Your task to perform on an android device: Search for the best selling books on Target. Image 0: 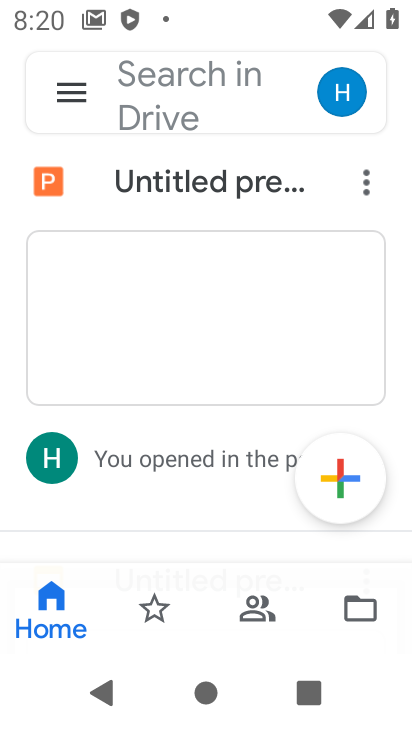
Step 0: press home button
Your task to perform on an android device: Search for the best selling books on Target. Image 1: 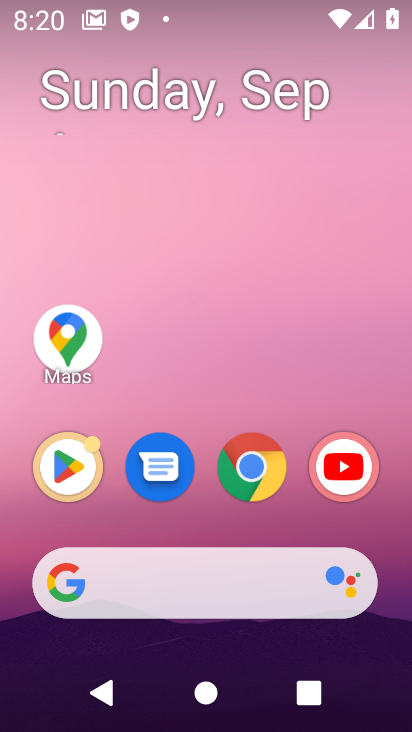
Step 1: click (262, 450)
Your task to perform on an android device: Search for the best selling books on Target. Image 2: 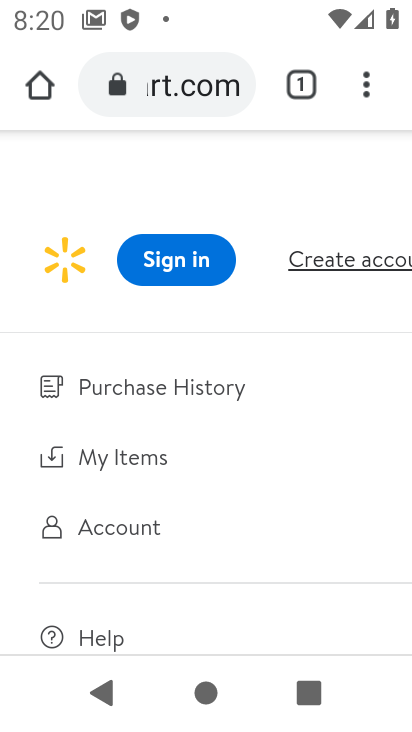
Step 2: press home button
Your task to perform on an android device: Search for the best selling books on Target. Image 3: 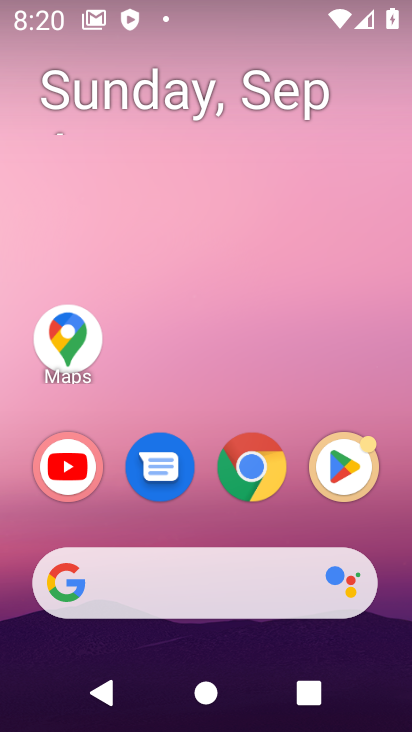
Step 3: click (235, 465)
Your task to perform on an android device: Search for the best selling books on Target. Image 4: 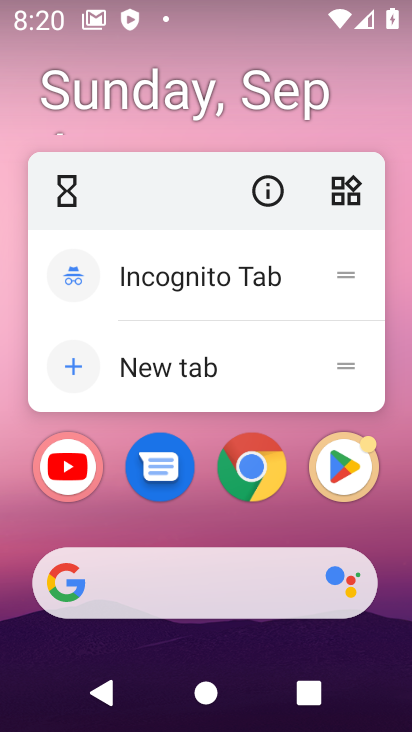
Step 4: click (255, 463)
Your task to perform on an android device: Search for the best selling books on Target. Image 5: 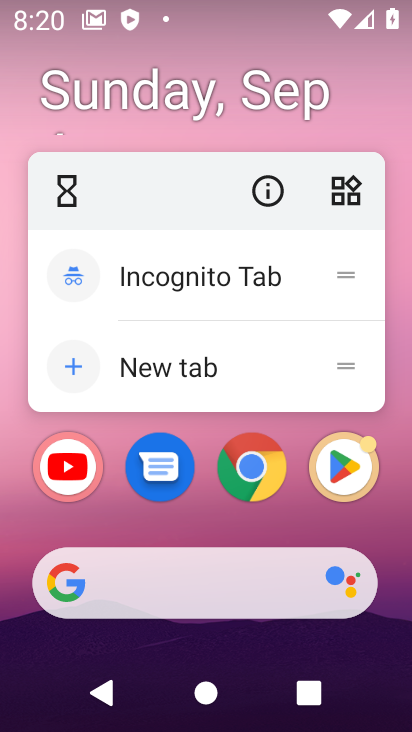
Step 5: click (256, 462)
Your task to perform on an android device: Search for the best selling books on Target. Image 6: 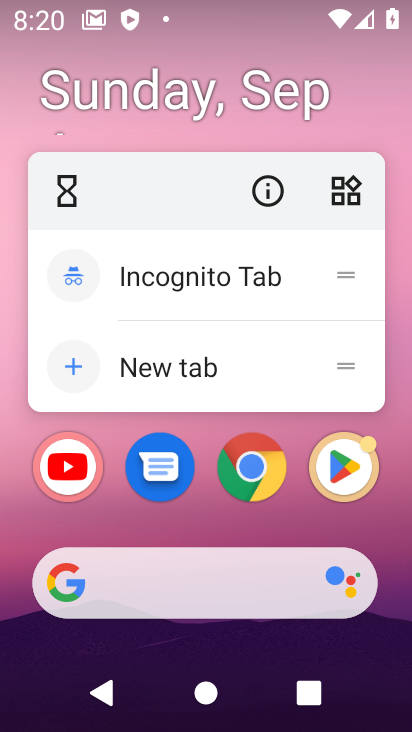
Step 6: click (258, 452)
Your task to perform on an android device: Search for the best selling books on Target. Image 7: 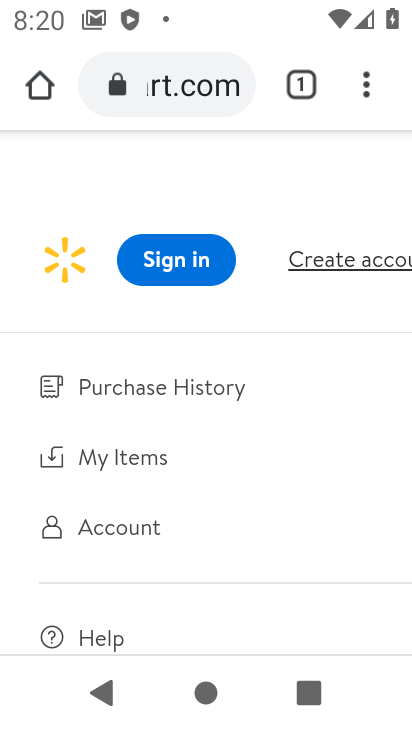
Step 7: click (307, 84)
Your task to perform on an android device: Search for the best selling books on Target. Image 8: 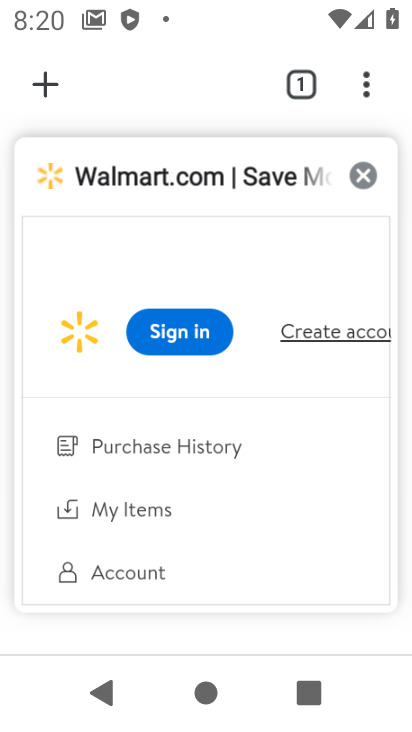
Step 8: click (360, 176)
Your task to perform on an android device: Search for the best selling books on Target. Image 9: 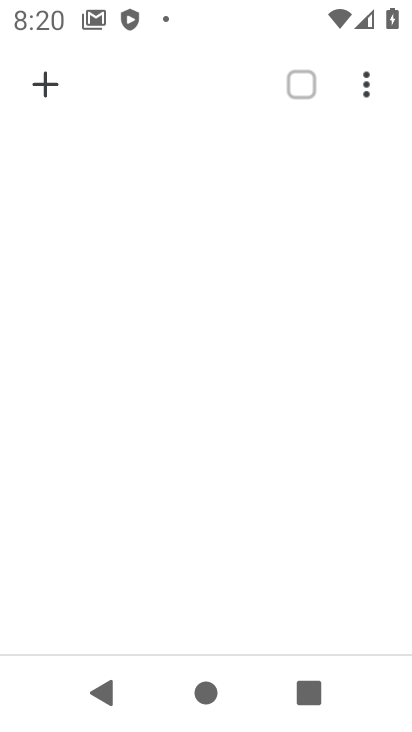
Step 9: click (47, 82)
Your task to perform on an android device: Search for the best selling books on Target. Image 10: 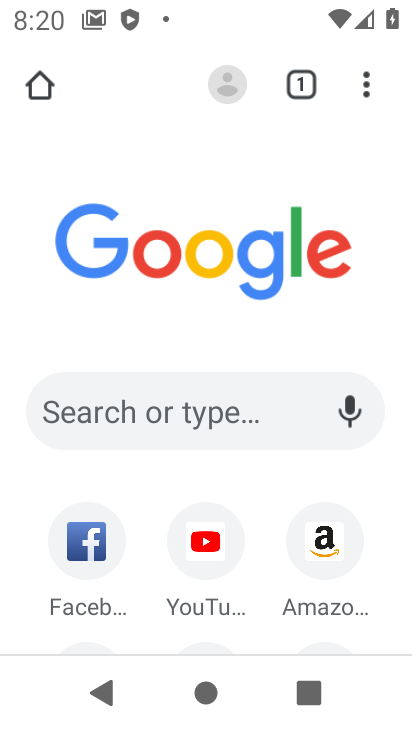
Step 10: click (236, 399)
Your task to perform on an android device: Search for the best selling books on Target. Image 11: 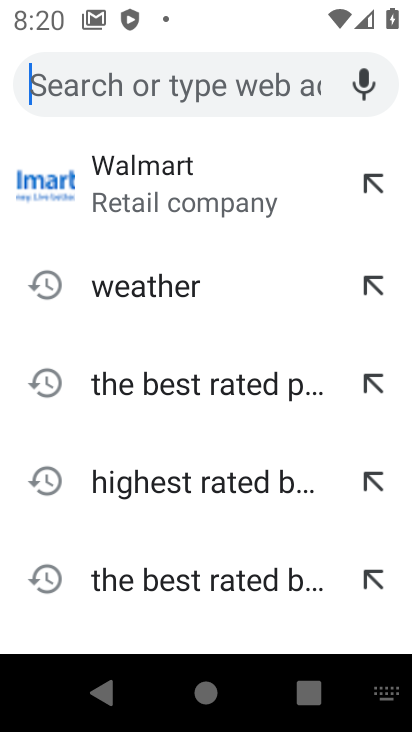
Step 11: type "target"
Your task to perform on an android device: Search for the best selling books on Target. Image 12: 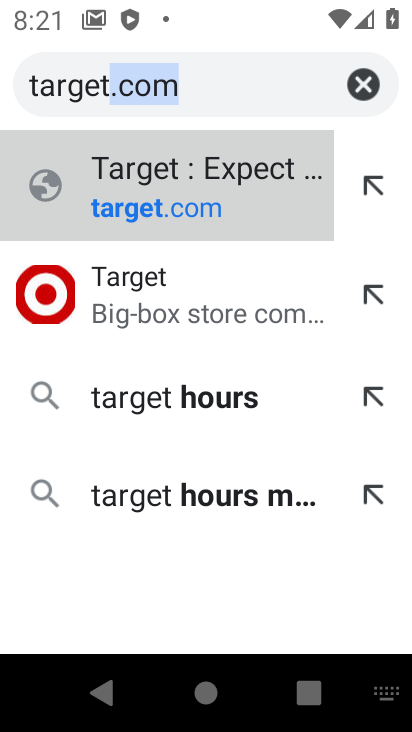
Step 12: click (106, 313)
Your task to perform on an android device: Search for the best selling books on Target. Image 13: 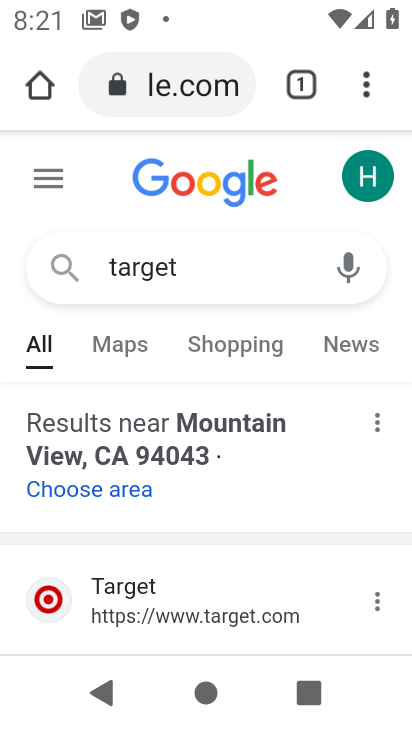
Step 13: drag from (408, 538) to (410, 315)
Your task to perform on an android device: Search for the best selling books on Target. Image 14: 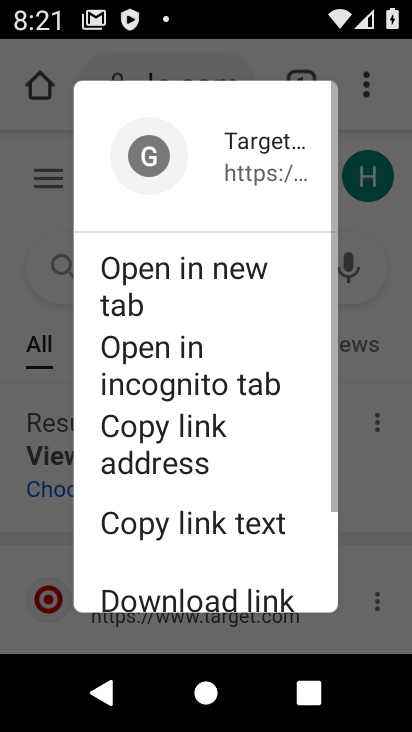
Step 14: click (353, 276)
Your task to perform on an android device: Search for the best selling books on Target. Image 15: 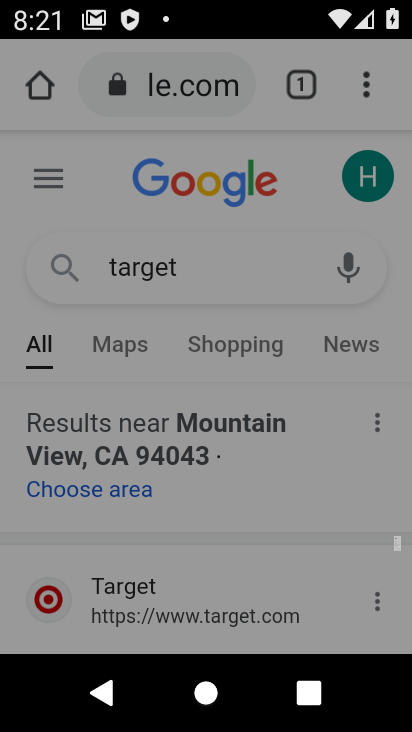
Step 15: click (411, 430)
Your task to perform on an android device: Search for the best selling books on Target. Image 16: 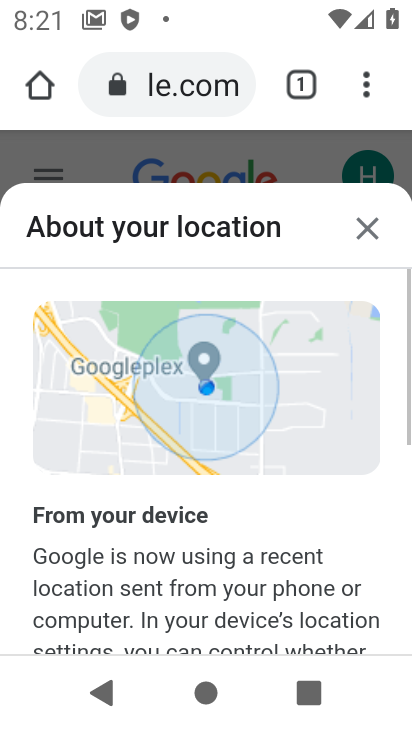
Step 16: click (395, 512)
Your task to perform on an android device: Search for the best selling books on Target. Image 17: 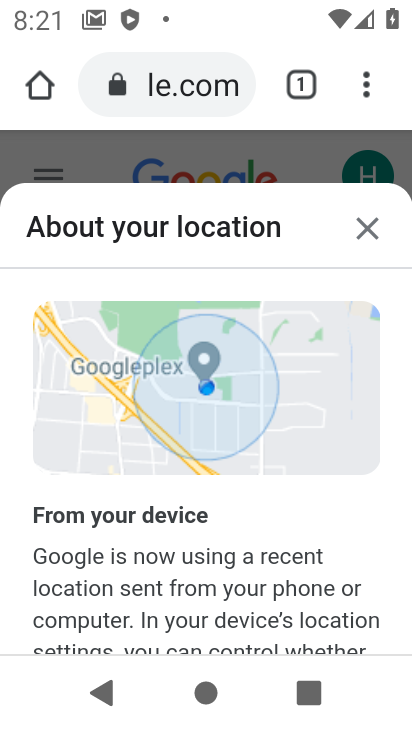
Step 17: click (379, 226)
Your task to perform on an android device: Search for the best selling books on Target. Image 18: 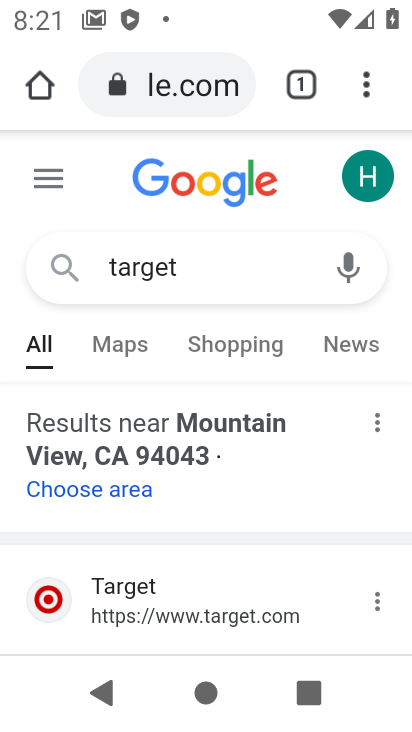
Step 18: drag from (404, 463) to (392, 154)
Your task to perform on an android device: Search for the best selling books on Target. Image 19: 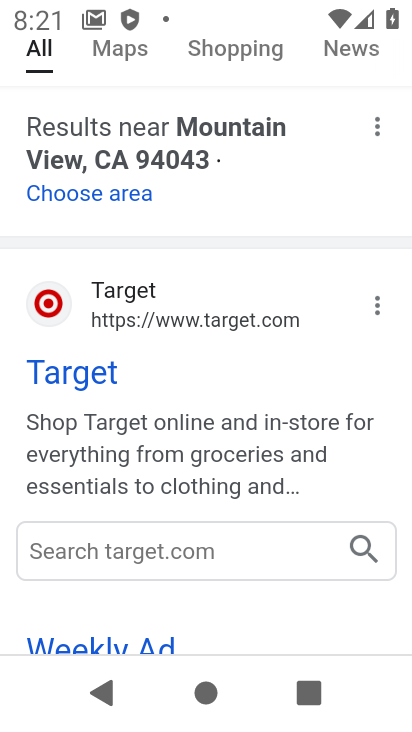
Step 19: click (84, 379)
Your task to perform on an android device: Search for the best selling books on Target. Image 20: 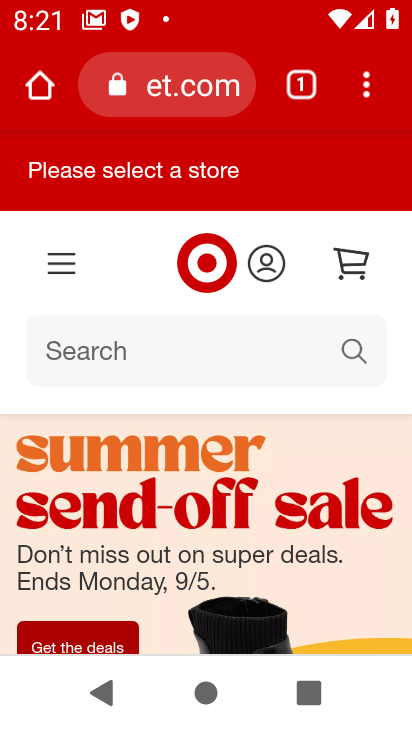
Step 20: click (150, 165)
Your task to perform on an android device: Search for the best selling books on Target. Image 21: 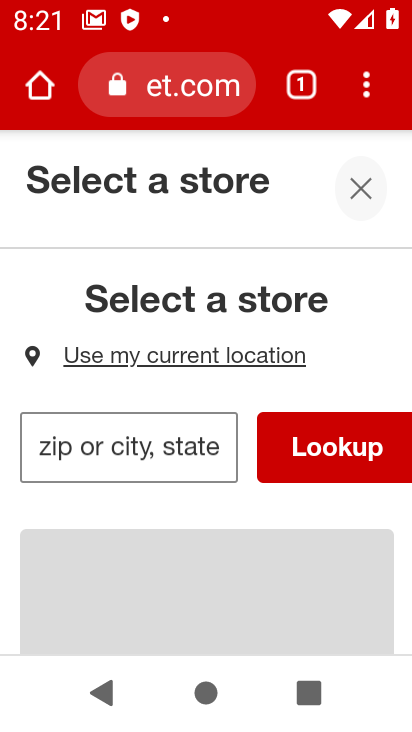
Step 21: click (359, 187)
Your task to perform on an android device: Search for the best selling books on Target. Image 22: 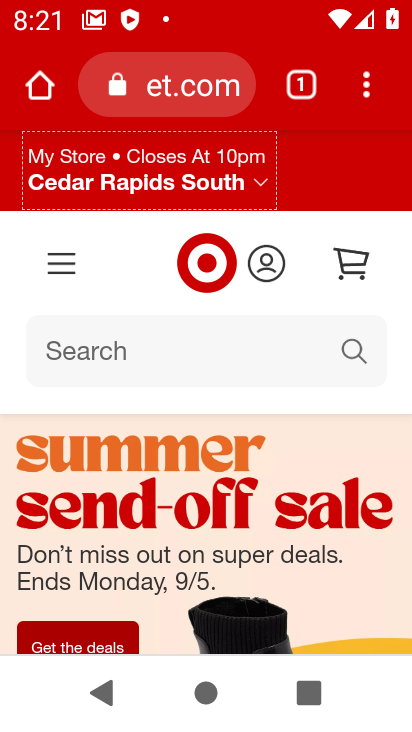
Step 22: click (223, 351)
Your task to perform on an android device: Search for the best selling books on Target. Image 23: 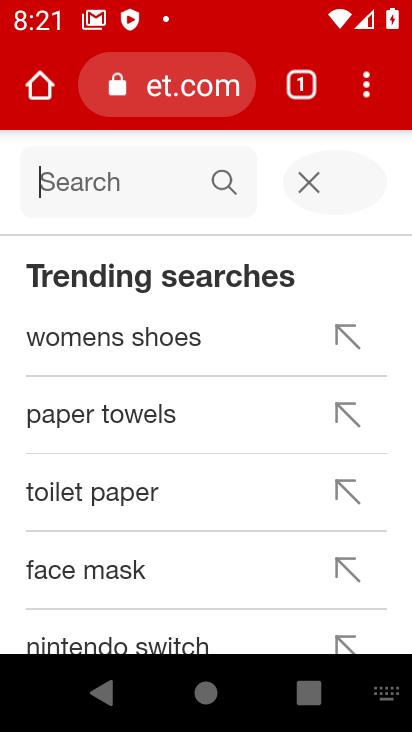
Step 23: type "best selling books"
Your task to perform on an android device: Search for the best selling books on Target. Image 24: 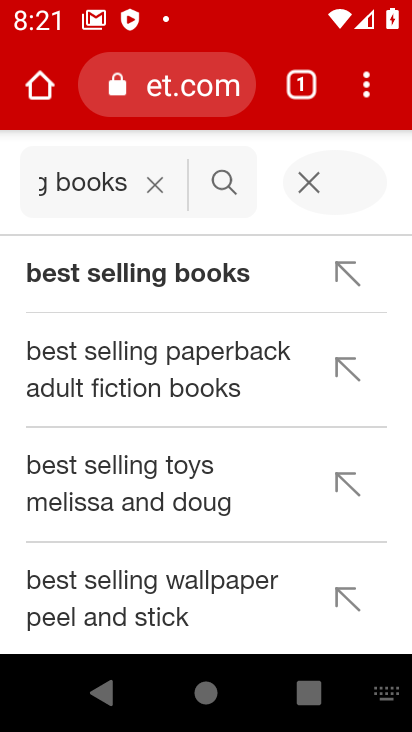
Step 24: click (128, 284)
Your task to perform on an android device: Search for the best selling books on Target. Image 25: 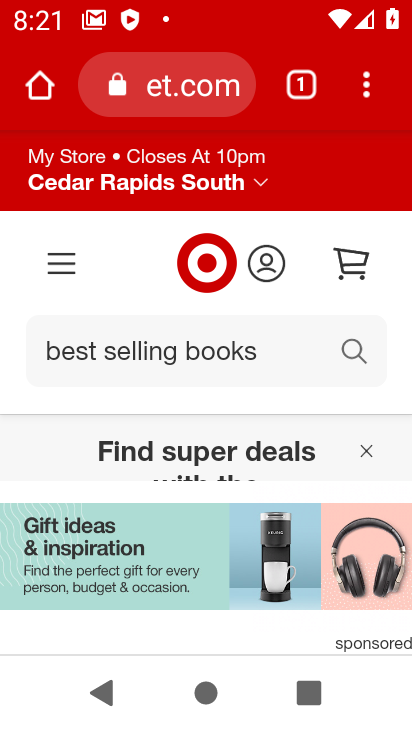
Step 25: drag from (374, 592) to (411, 198)
Your task to perform on an android device: Search for the best selling books on Target. Image 26: 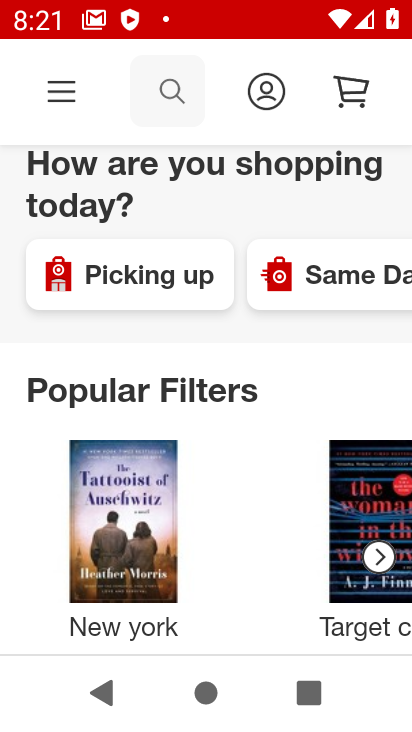
Step 26: drag from (358, 313) to (373, 187)
Your task to perform on an android device: Search for the best selling books on Target. Image 27: 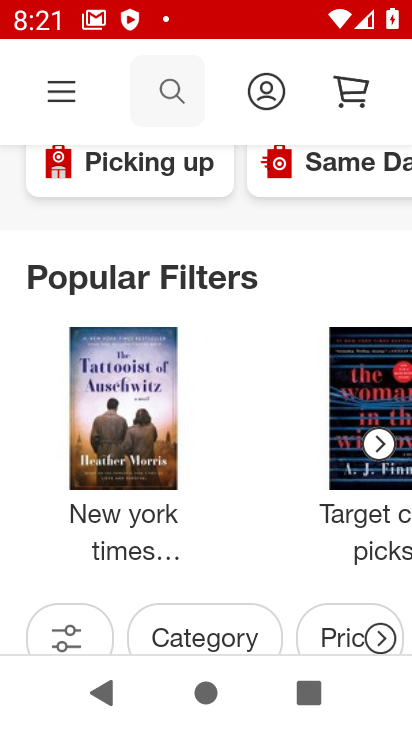
Step 27: drag from (292, 563) to (353, 207)
Your task to perform on an android device: Search for the best selling books on Target. Image 28: 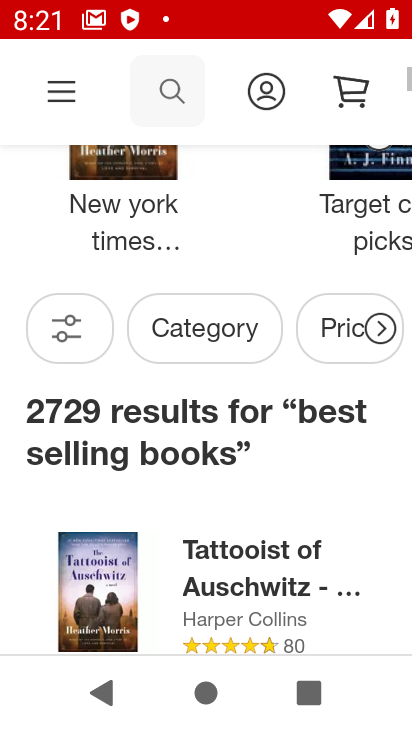
Step 28: drag from (356, 397) to (362, 205)
Your task to perform on an android device: Search for the best selling books on Target. Image 29: 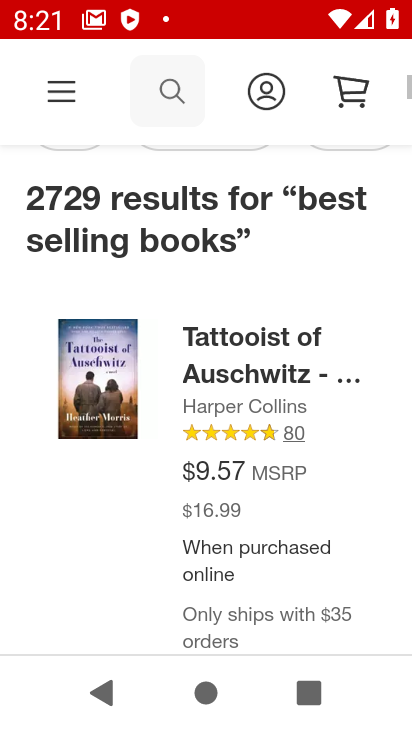
Step 29: drag from (318, 515) to (337, 237)
Your task to perform on an android device: Search for the best selling books on Target. Image 30: 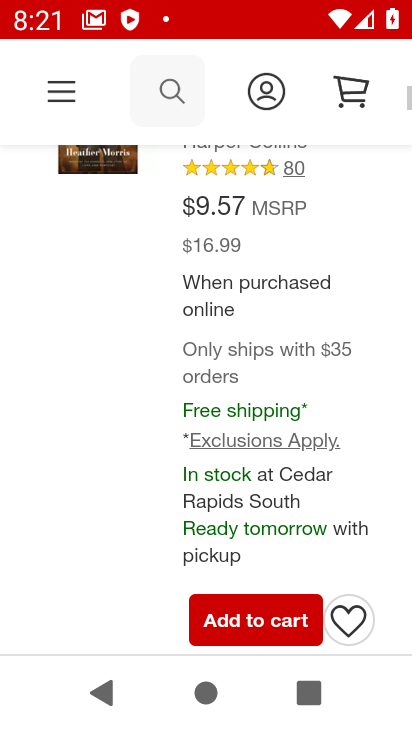
Step 30: drag from (321, 526) to (349, 178)
Your task to perform on an android device: Search for the best selling books on Target. Image 31: 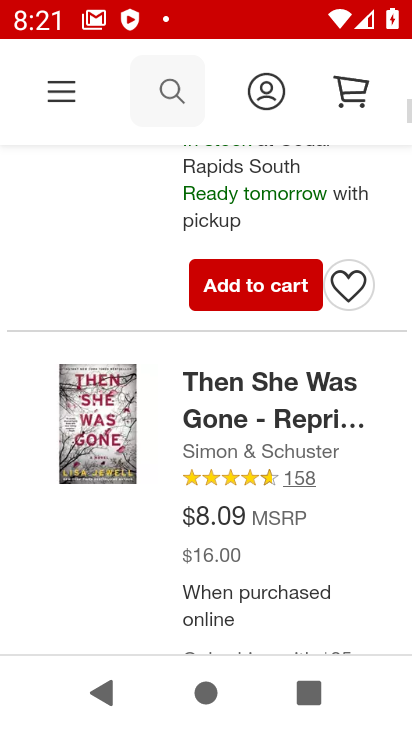
Step 31: drag from (273, 547) to (373, 14)
Your task to perform on an android device: Search for the best selling books on Target. Image 32: 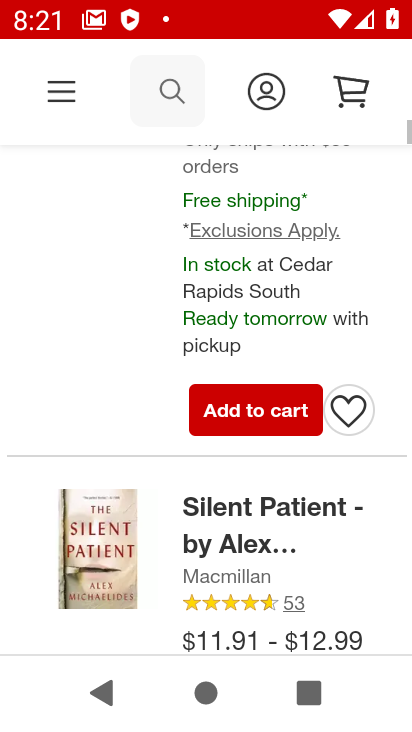
Step 32: drag from (310, 474) to (375, 142)
Your task to perform on an android device: Search for the best selling books on Target. Image 33: 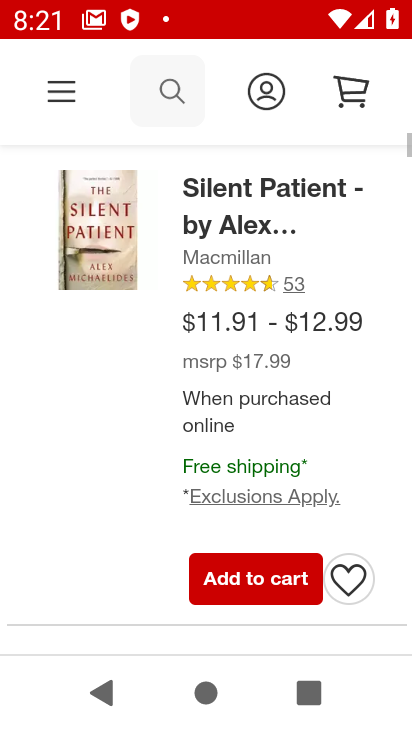
Step 33: drag from (398, 399) to (406, 237)
Your task to perform on an android device: Search for the best selling books on Target. Image 34: 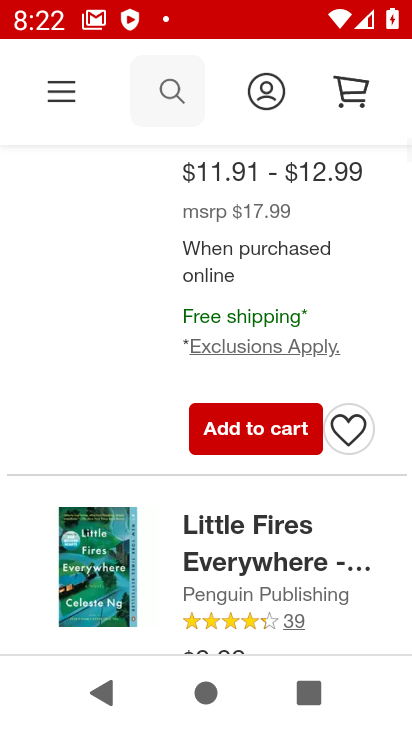
Step 34: drag from (313, 562) to (372, 211)
Your task to perform on an android device: Search for the best selling books on Target. Image 35: 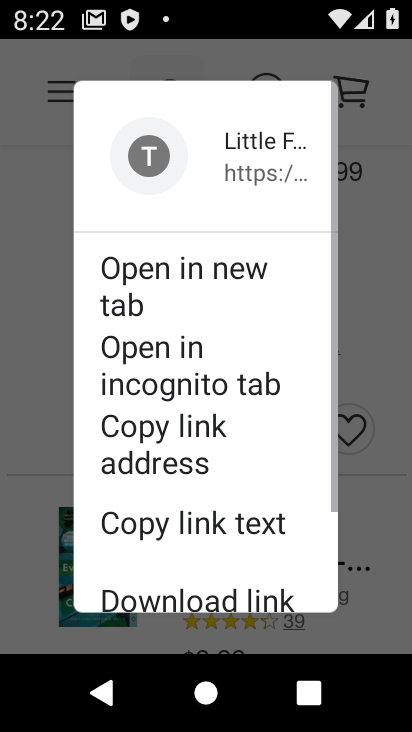
Step 35: drag from (247, 598) to (293, 294)
Your task to perform on an android device: Search for the best selling books on Target. Image 36: 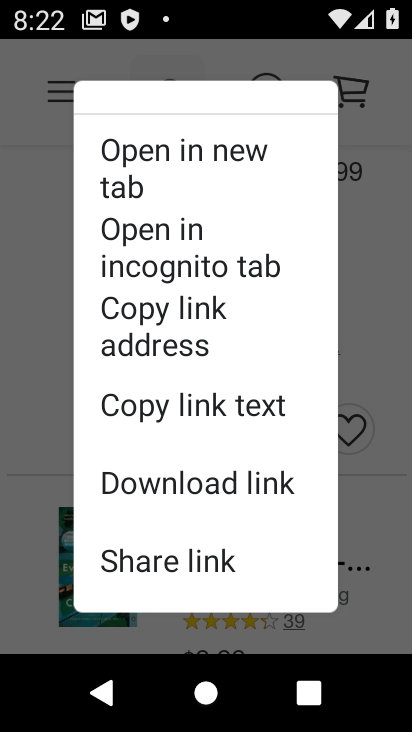
Step 36: click (400, 334)
Your task to perform on an android device: Search for the best selling books on Target. Image 37: 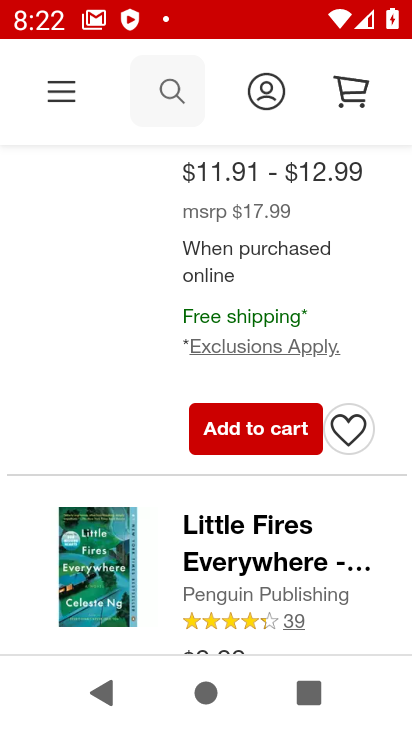
Step 37: drag from (341, 560) to (386, 129)
Your task to perform on an android device: Search for the best selling books on Target. Image 38: 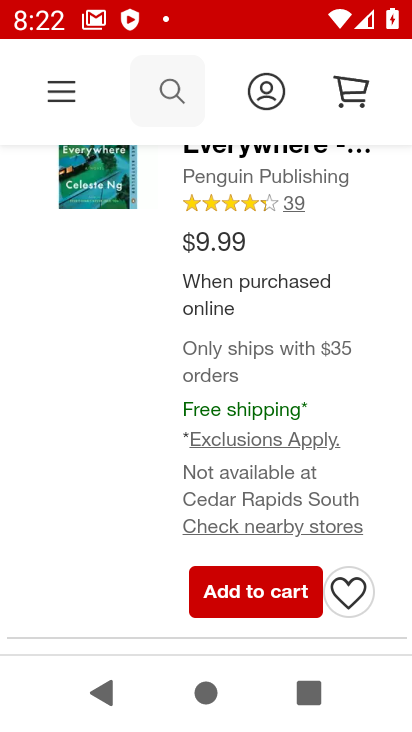
Step 38: drag from (361, 427) to (396, 13)
Your task to perform on an android device: Search for the best selling books on Target. Image 39: 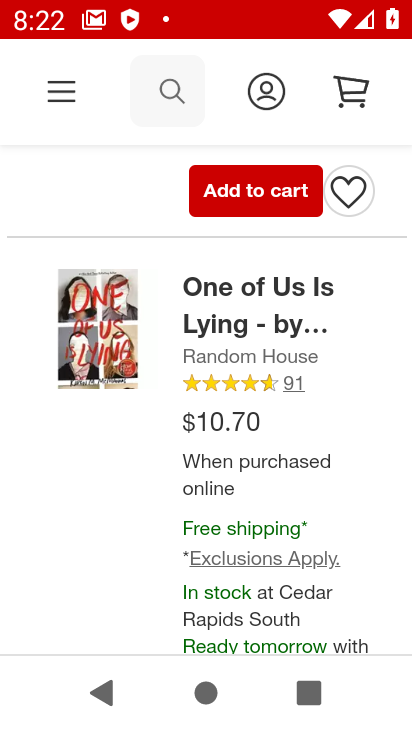
Step 39: drag from (341, 407) to (343, 208)
Your task to perform on an android device: Search for the best selling books on Target. Image 40: 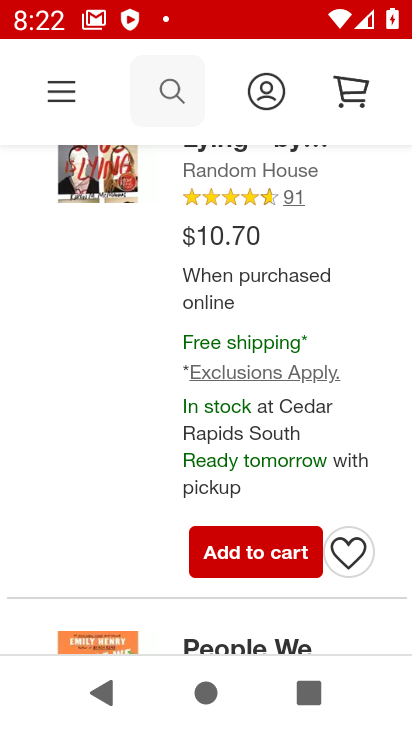
Step 40: drag from (355, 407) to (382, 115)
Your task to perform on an android device: Search for the best selling books on Target. Image 41: 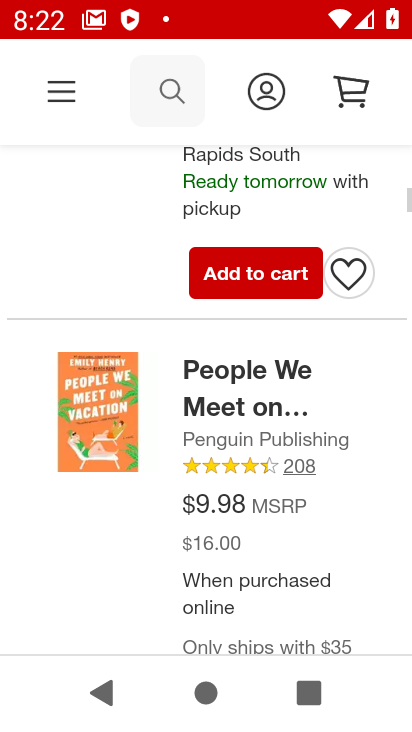
Step 41: drag from (373, 510) to (408, 197)
Your task to perform on an android device: Search for the best selling books on Target. Image 42: 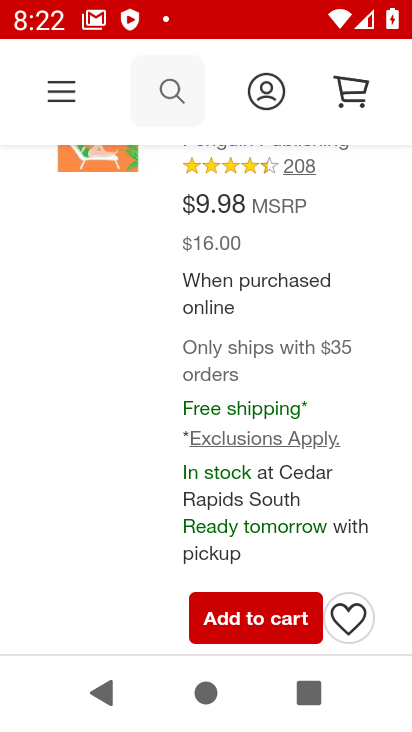
Step 42: drag from (342, 557) to (387, 148)
Your task to perform on an android device: Search for the best selling books on Target. Image 43: 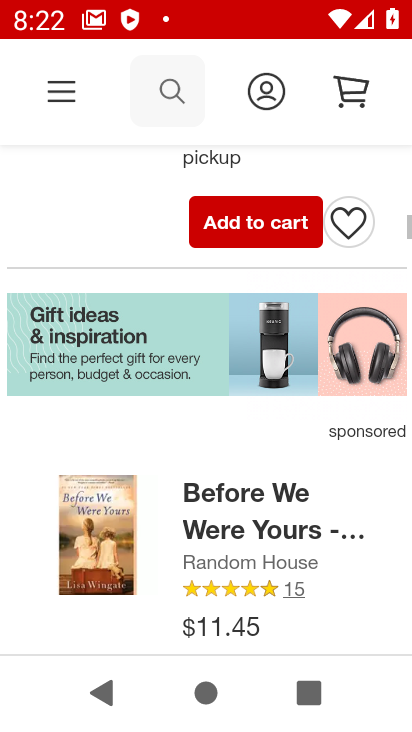
Step 43: click (337, 637)
Your task to perform on an android device: Search for the best selling books on Target. Image 44: 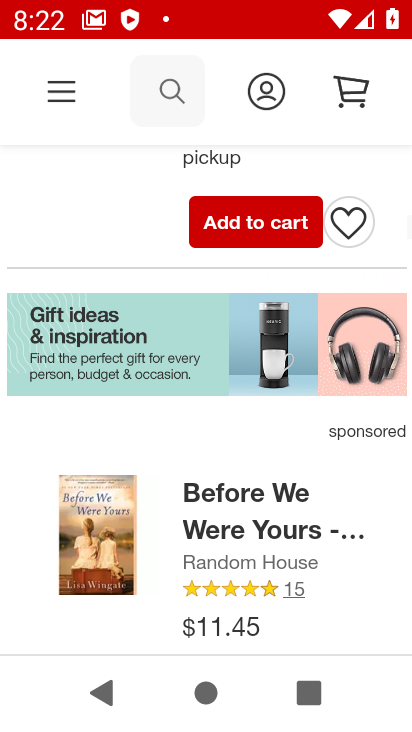
Step 44: drag from (379, 374) to (392, 270)
Your task to perform on an android device: Search for the best selling books on Target. Image 45: 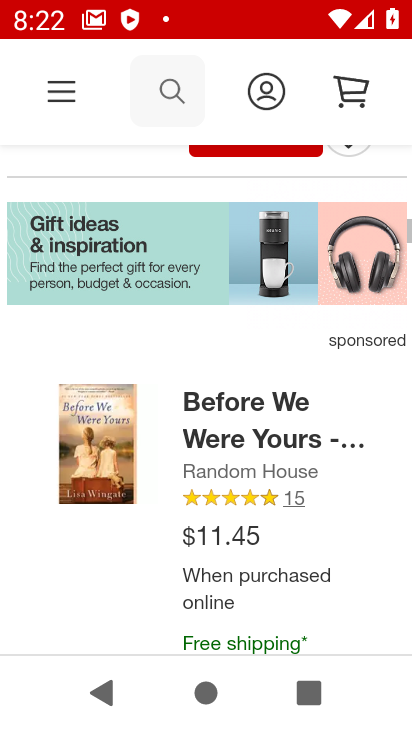
Step 45: drag from (347, 468) to (367, 256)
Your task to perform on an android device: Search for the best selling books on Target. Image 46: 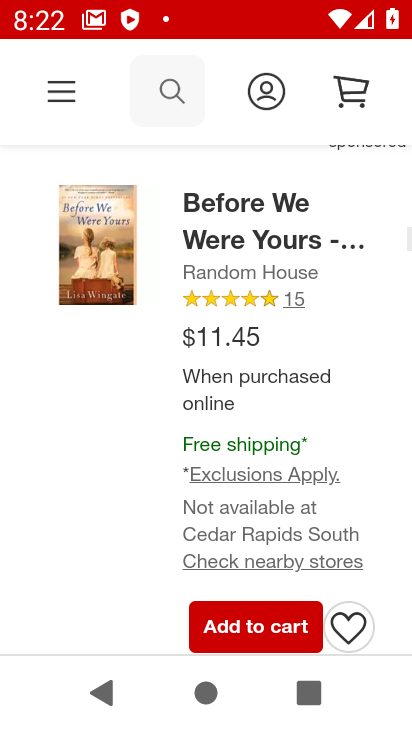
Step 46: drag from (305, 437) to (386, 209)
Your task to perform on an android device: Search for the best selling books on Target. Image 47: 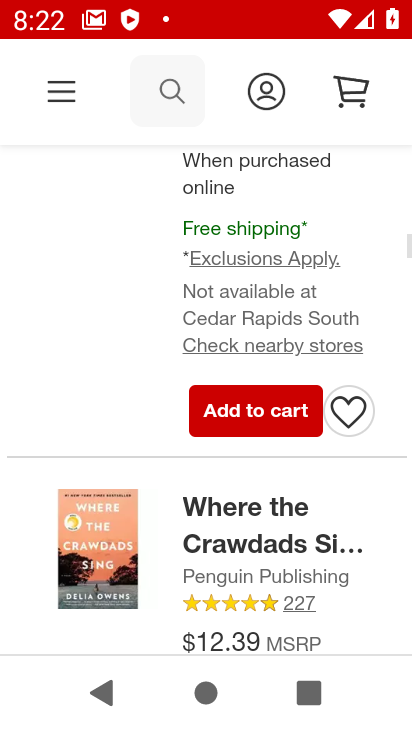
Step 47: drag from (329, 564) to (339, 183)
Your task to perform on an android device: Search for the best selling books on Target. Image 48: 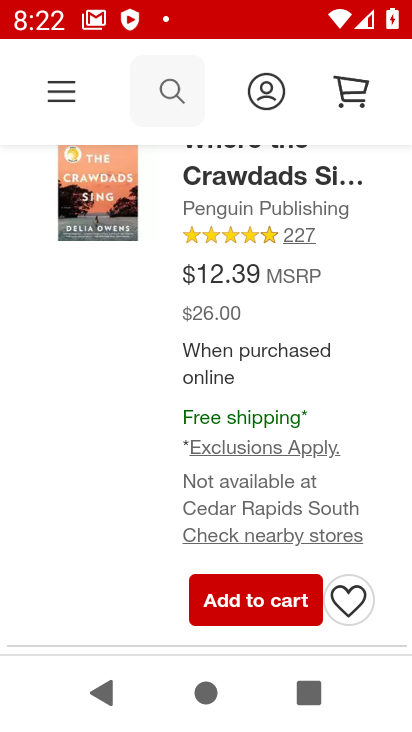
Step 48: drag from (347, 289) to (373, 141)
Your task to perform on an android device: Search for the best selling books on Target. Image 49: 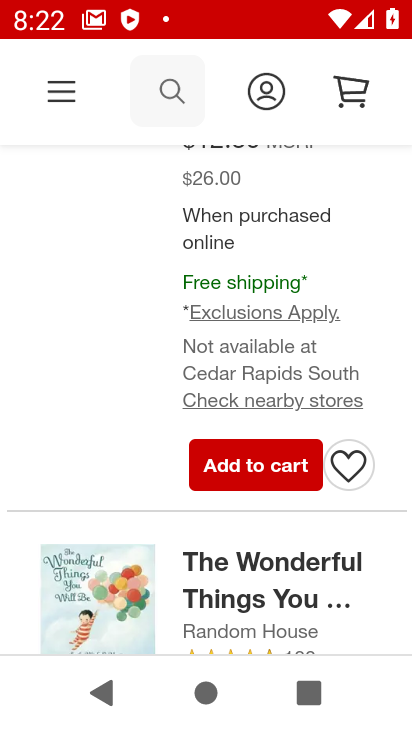
Step 49: drag from (336, 610) to (392, 55)
Your task to perform on an android device: Search for the best selling books on Target. Image 50: 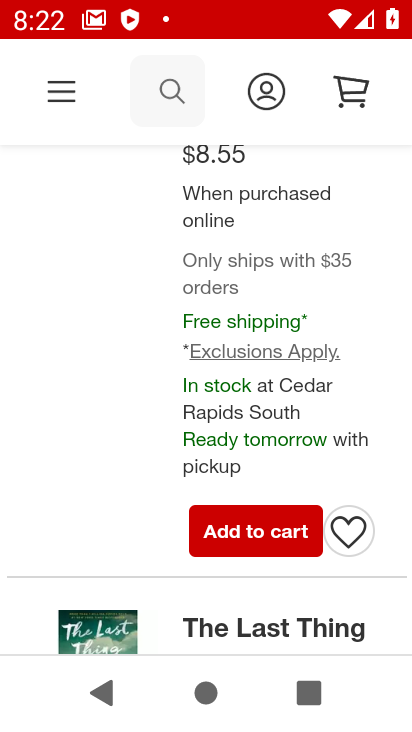
Step 50: drag from (391, 658) to (49, 130)
Your task to perform on an android device: Search for the best selling books on Target. Image 51: 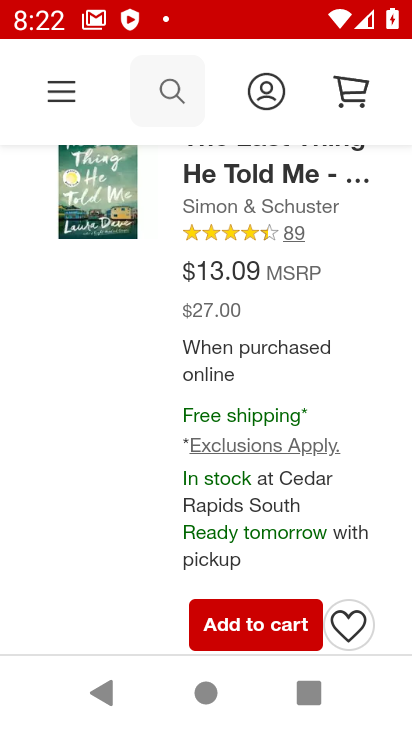
Step 51: drag from (374, 468) to (405, 115)
Your task to perform on an android device: Search for the best selling books on Target. Image 52: 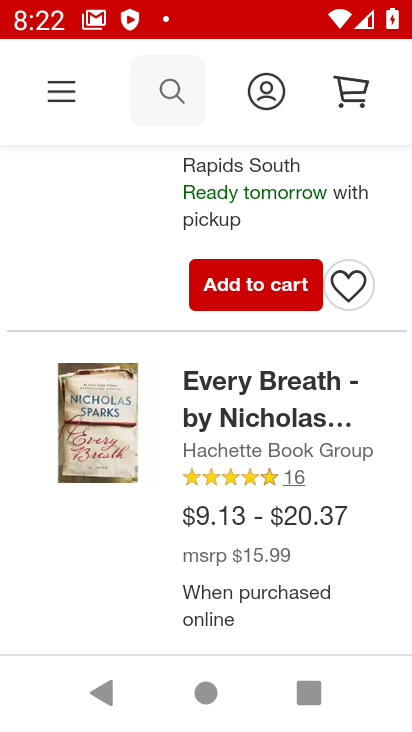
Step 52: drag from (358, 554) to (361, 167)
Your task to perform on an android device: Search for the best selling books on Target. Image 53: 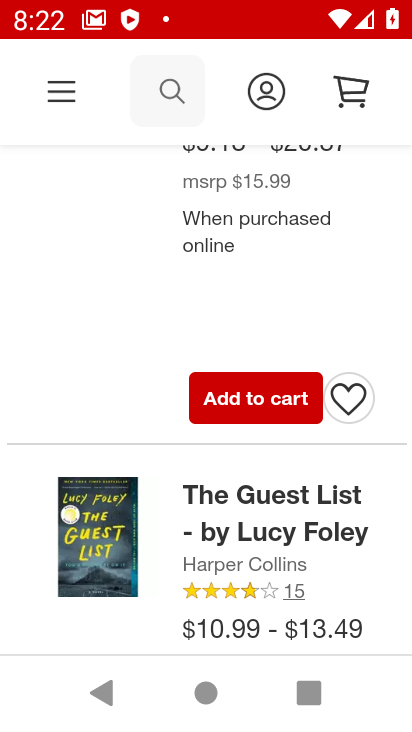
Step 53: drag from (360, 557) to (360, 222)
Your task to perform on an android device: Search for the best selling books on Target. Image 54: 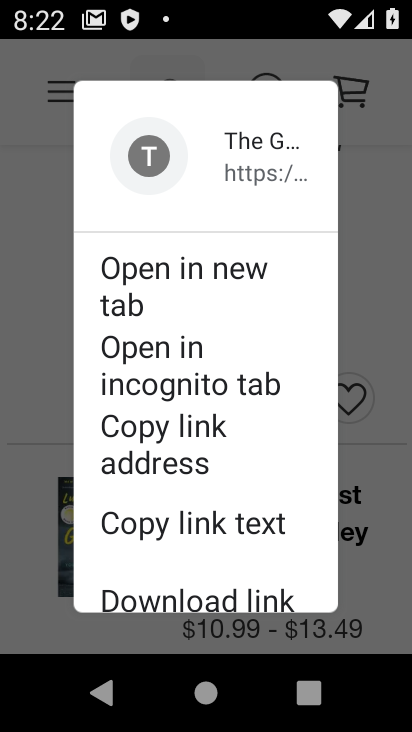
Step 54: click (390, 413)
Your task to perform on an android device: Search for the best selling books on Target. Image 55: 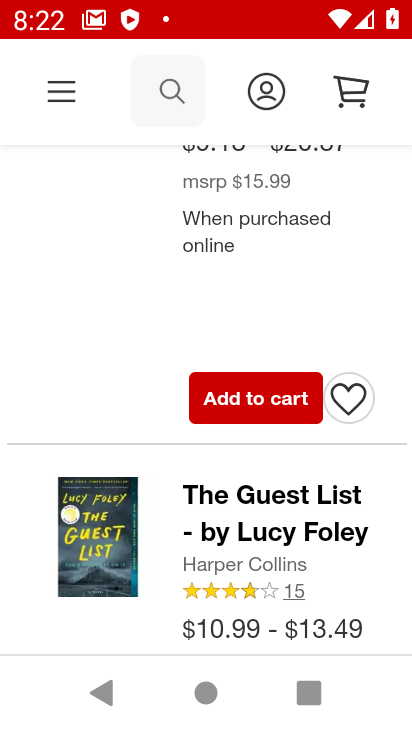
Step 55: task complete